Your task to perform on an android device: set the timer Image 0: 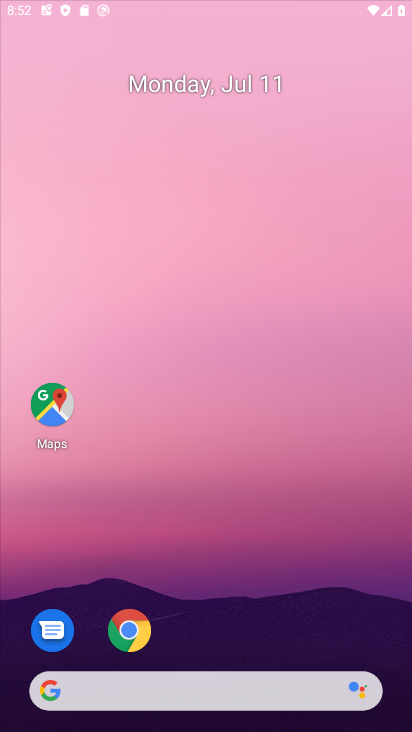
Step 0: press home button
Your task to perform on an android device: set the timer Image 1: 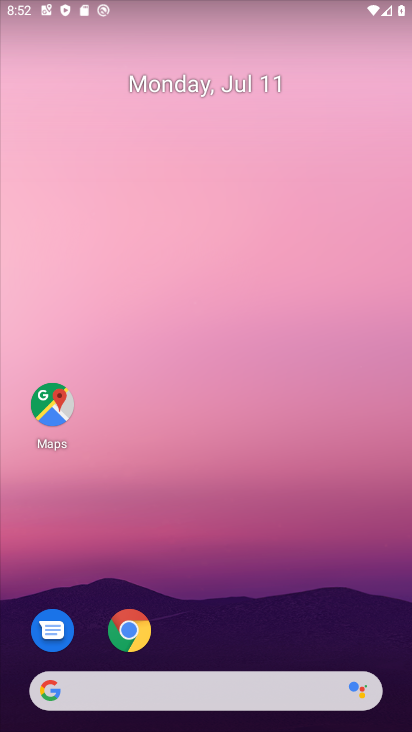
Step 1: drag from (219, 643) to (220, 100)
Your task to perform on an android device: set the timer Image 2: 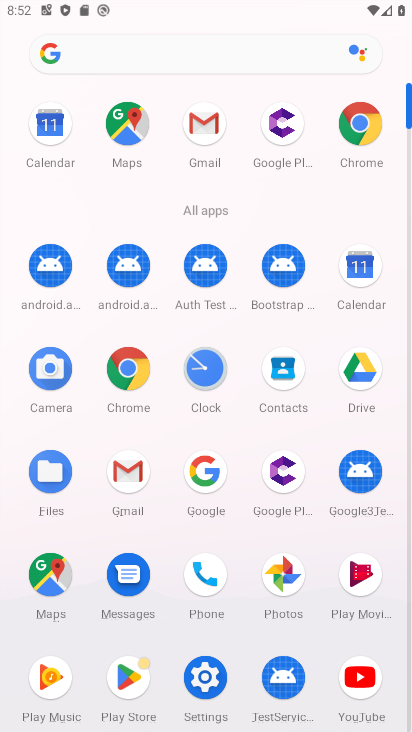
Step 2: click (204, 364)
Your task to perform on an android device: set the timer Image 3: 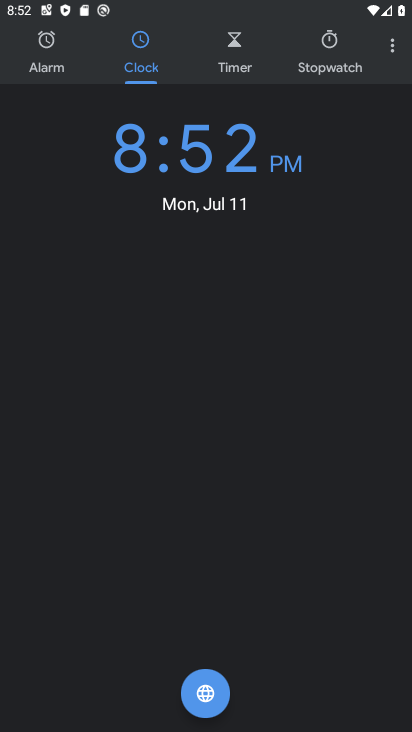
Step 3: click (231, 44)
Your task to perform on an android device: set the timer Image 4: 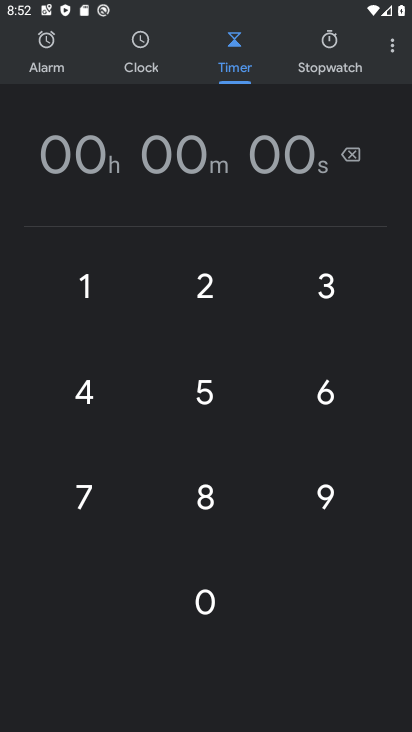
Step 4: click (208, 282)
Your task to perform on an android device: set the timer Image 5: 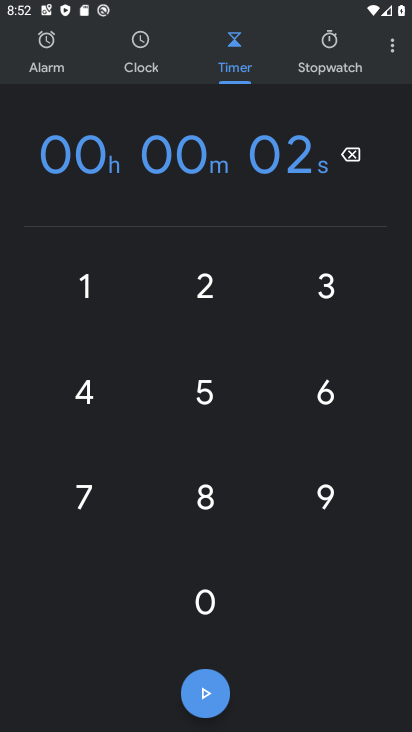
Step 5: click (203, 598)
Your task to perform on an android device: set the timer Image 6: 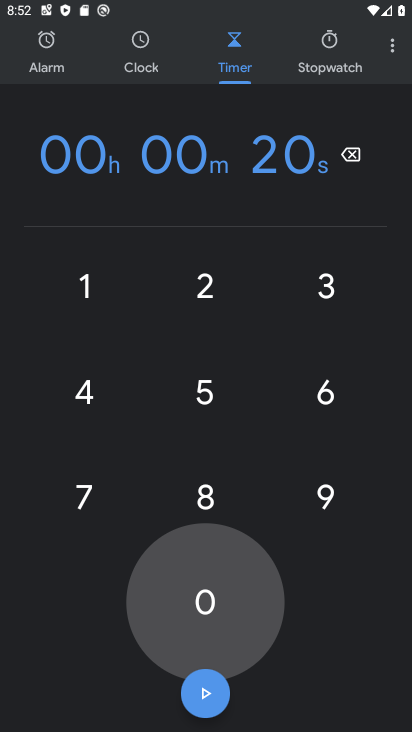
Step 6: click (203, 598)
Your task to perform on an android device: set the timer Image 7: 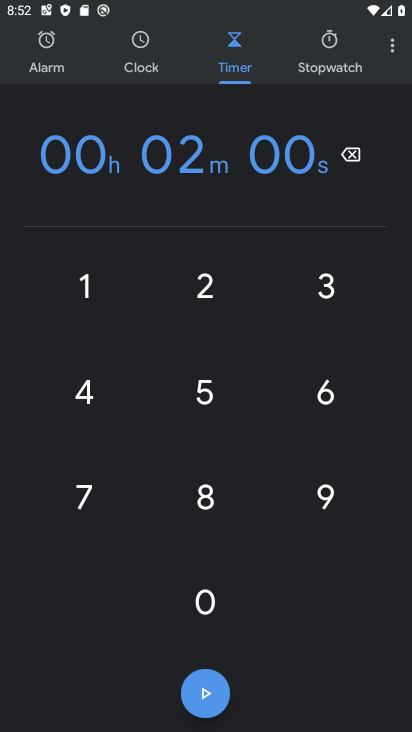
Step 7: click (203, 598)
Your task to perform on an android device: set the timer Image 8: 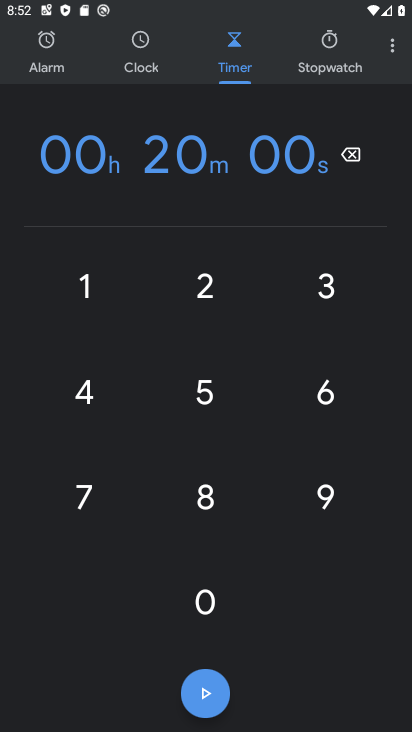
Step 8: click (203, 598)
Your task to perform on an android device: set the timer Image 9: 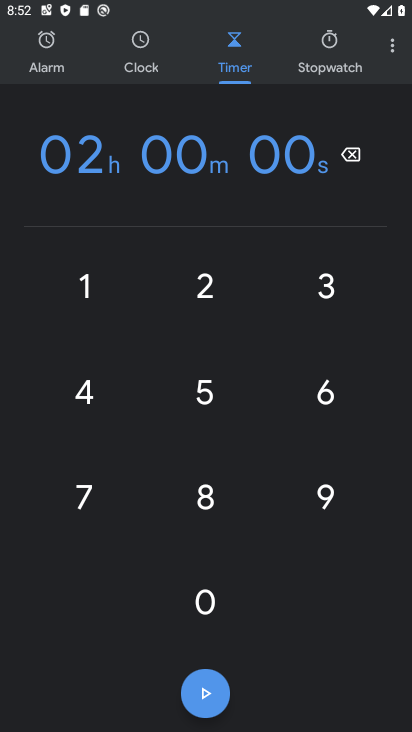
Step 9: click (203, 691)
Your task to perform on an android device: set the timer Image 10: 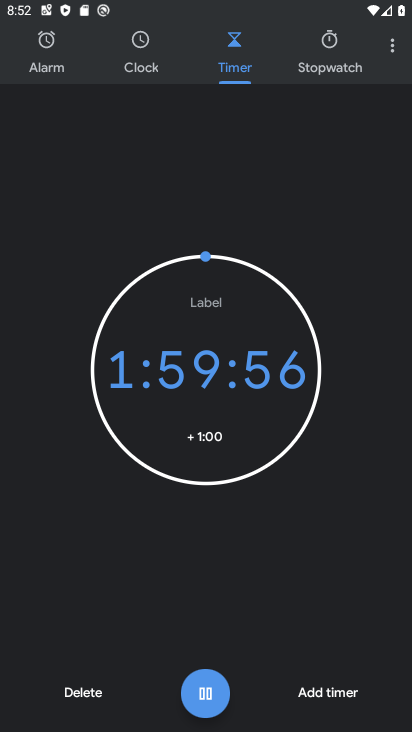
Step 10: click (192, 435)
Your task to perform on an android device: set the timer Image 11: 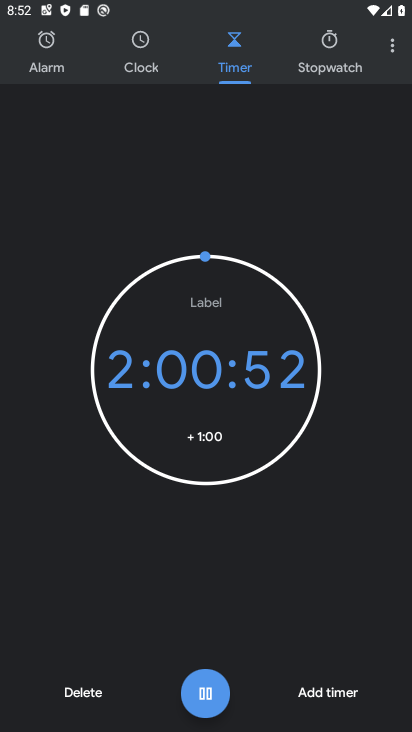
Step 11: task complete